Your task to perform on an android device: View the shopping cart on target. Add "duracell triple a" to the cart on target, then select checkout. Image 0: 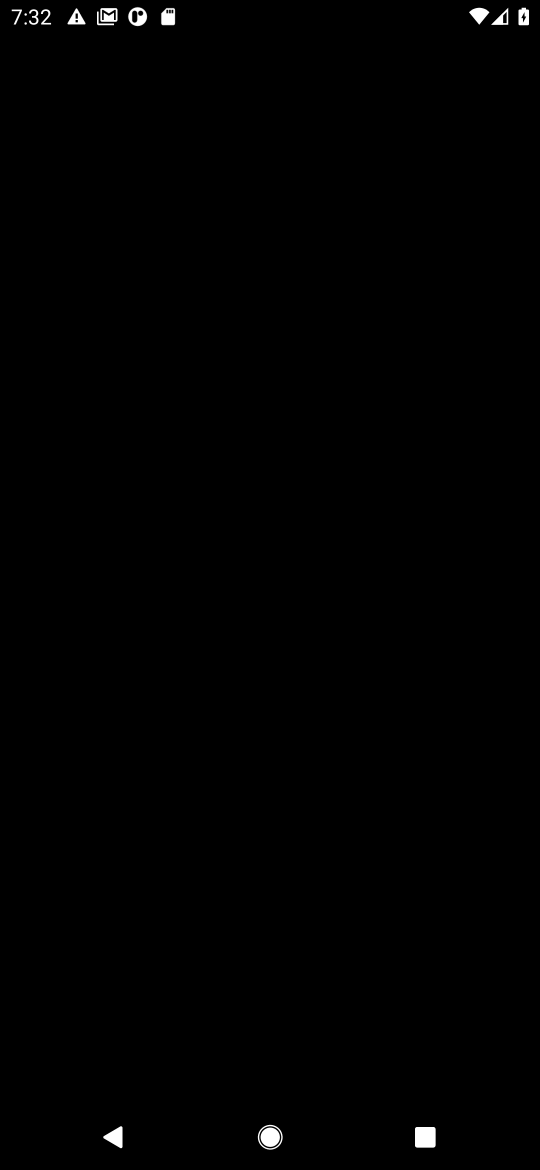
Step 0: press home button
Your task to perform on an android device: View the shopping cart on target. Add "duracell triple a" to the cart on target, then select checkout. Image 1: 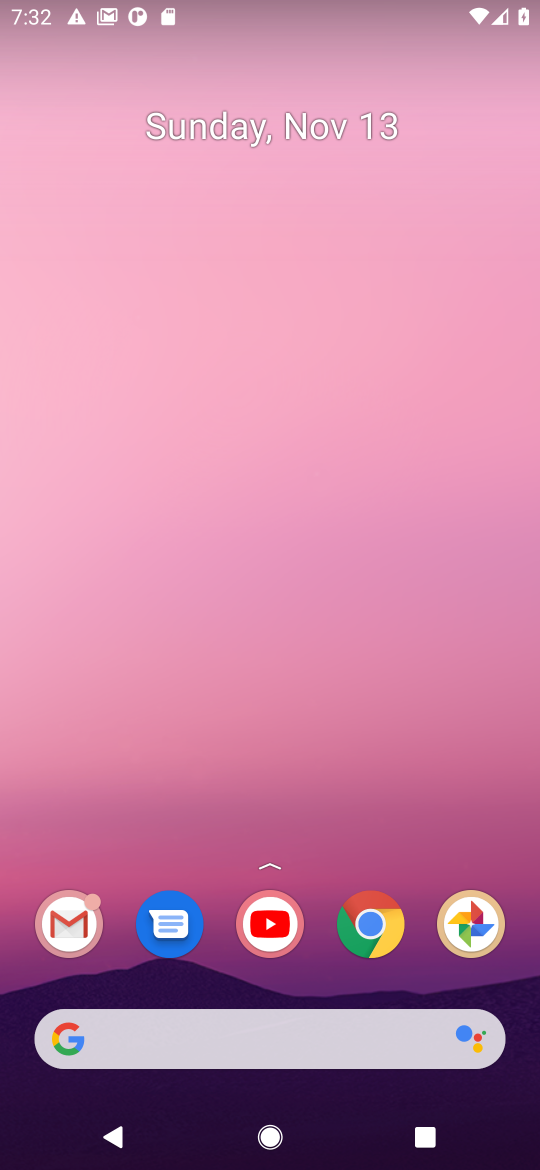
Step 1: click (384, 927)
Your task to perform on an android device: View the shopping cart on target. Add "duracell triple a" to the cart on target, then select checkout. Image 2: 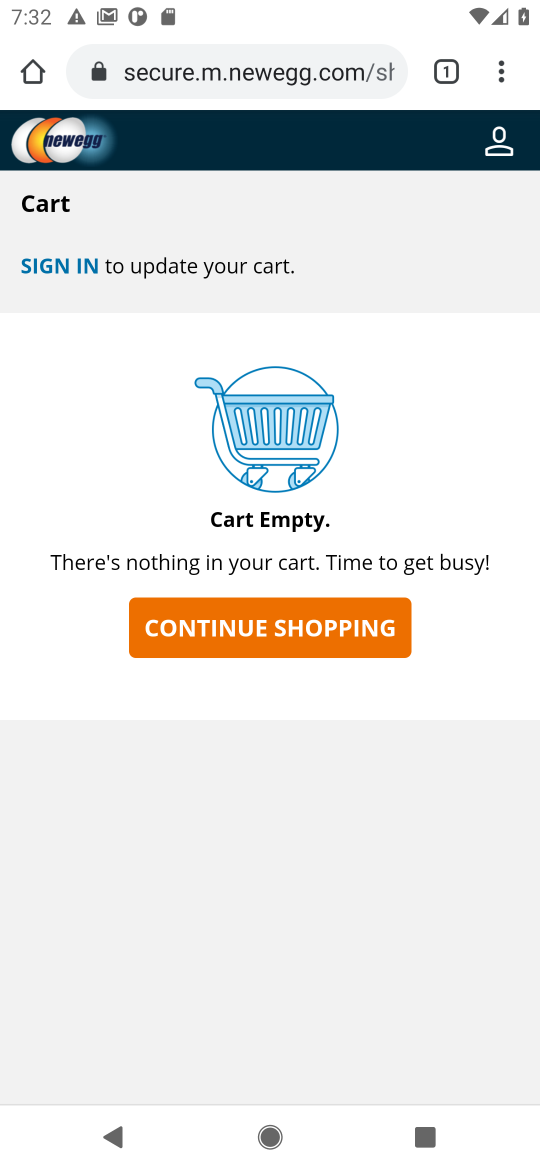
Step 2: click (224, 67)
Your task to perform on an android device: View the shopping cart on target. Add "duracell triple a" to the cart on target, then select checkout. Image 3: 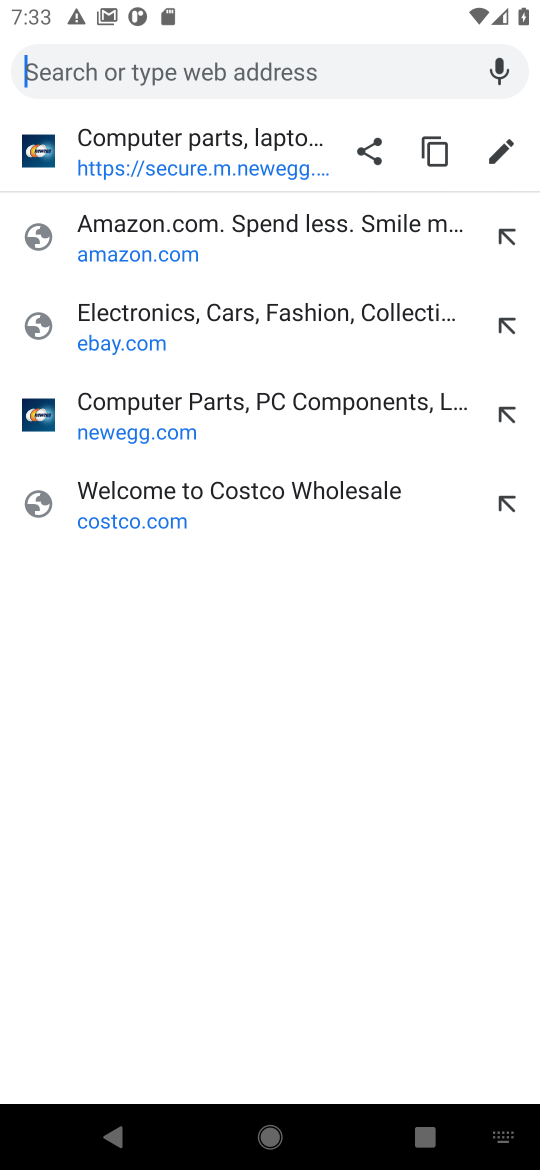
Step 3: type "target.com"
Your task to perform on an android device: View the shopping cart on target. Add "duracell triple a" to the cart on target, then select checkout. Image 4: 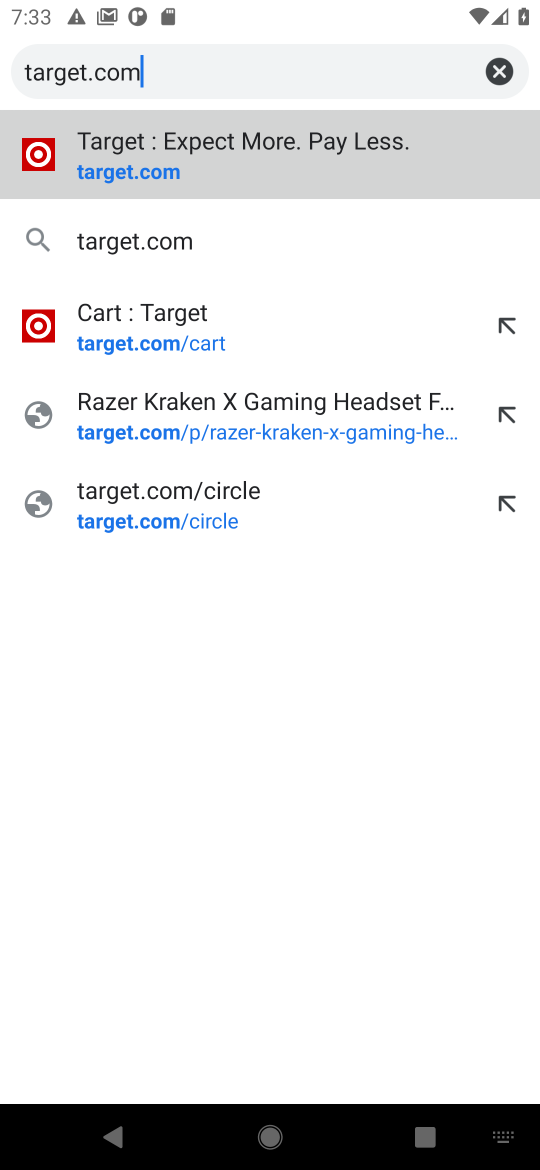
Step 4: click (105, 173)
Your task to perform on an android device: View the shopping cart on target. Add "duracell triple a" to the cart on target, then select checkout. Image 5: 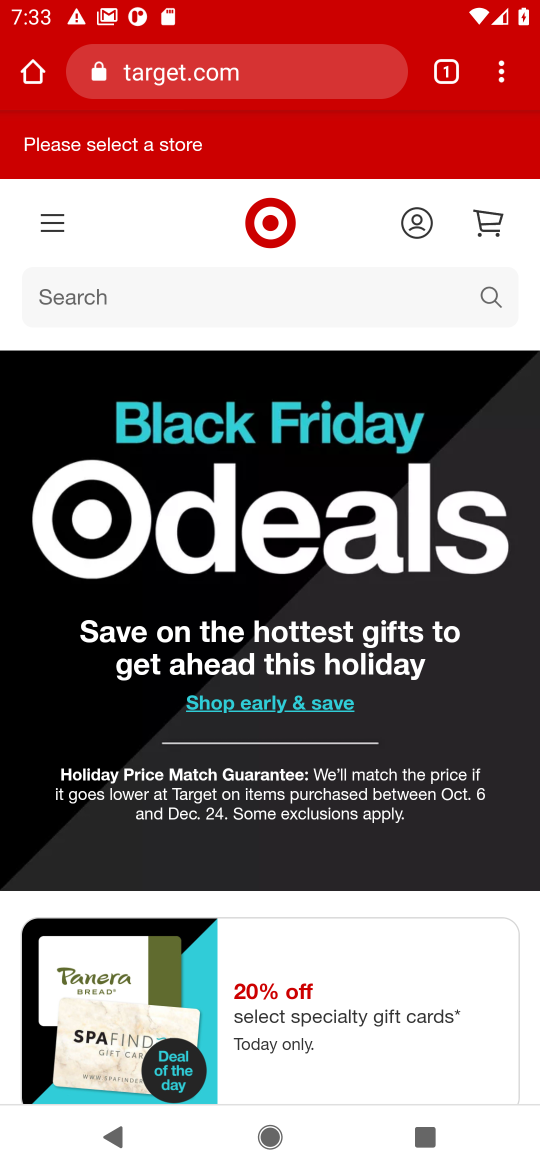
Step 5: click (495, 229)
Your task to perform on an android device: View the shopping cart on target. Add "duracell triple a" to the cart on target, then select checkout. Image 6: 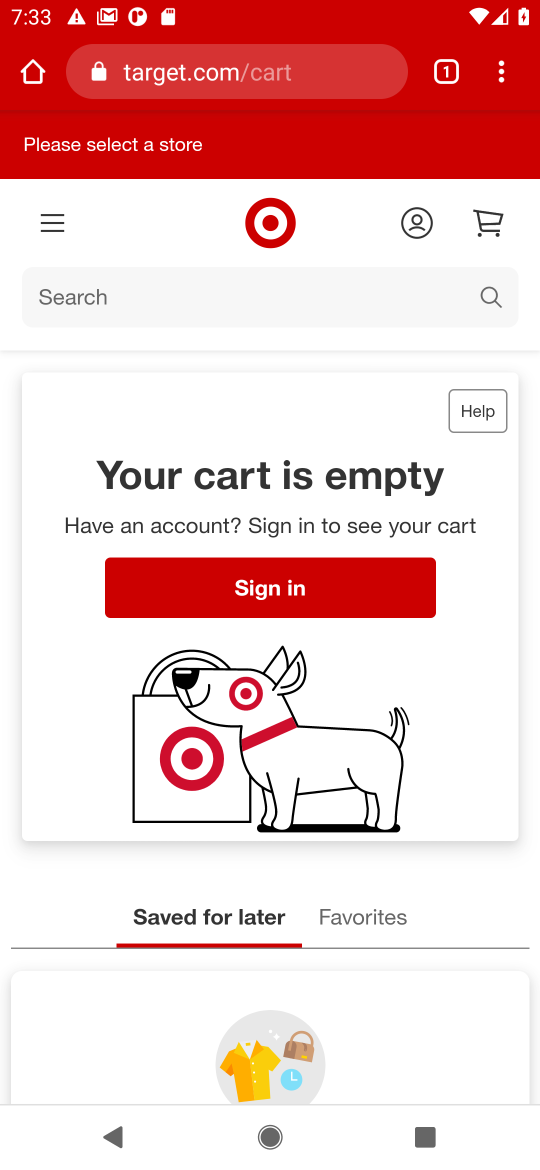
Step 6: click (493, 294)
Your task to perform on an android device: View the shopping cart on target. Add "duracell triple a" to the cart on target, then select checkout. Image 7: 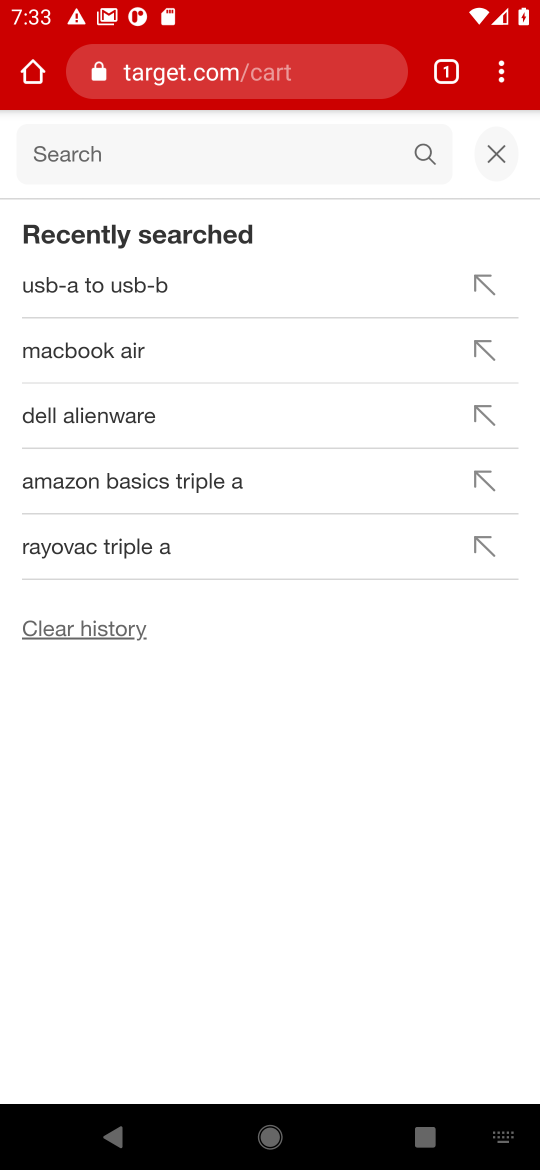
Step 7: type "duracell triple a"
Your task to perform on an android device: View the shopping cart on target. Add "duracell triple a" to the cart on target, then select checkout. Image 8: 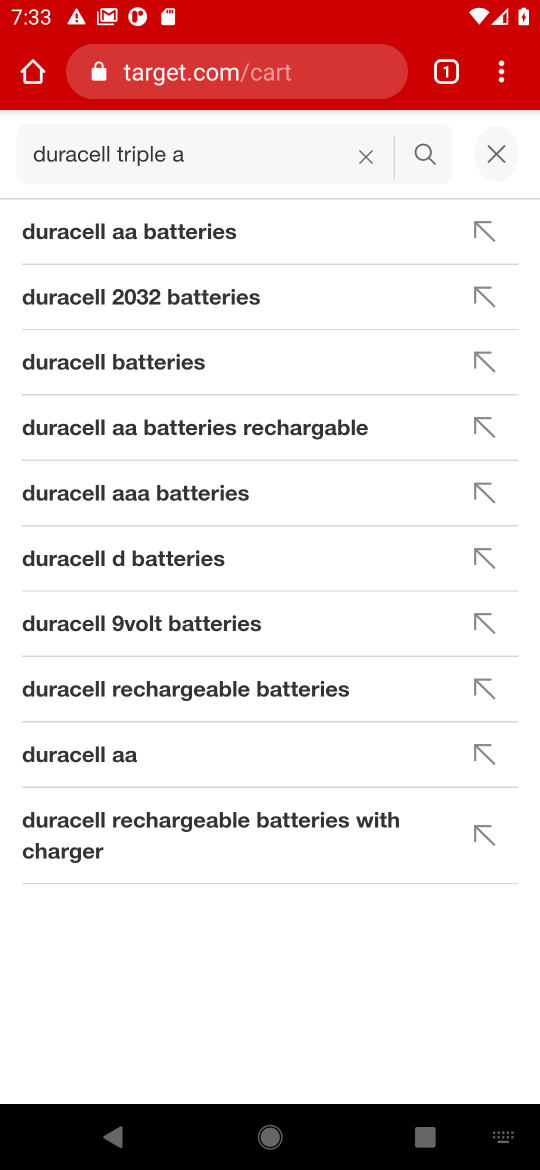
Step 8: click (434, 152)
Your task to perform on an android device: View the shopping cart on target. Add "duracell triple a" to the cart on target, then select checkout. Image 9: 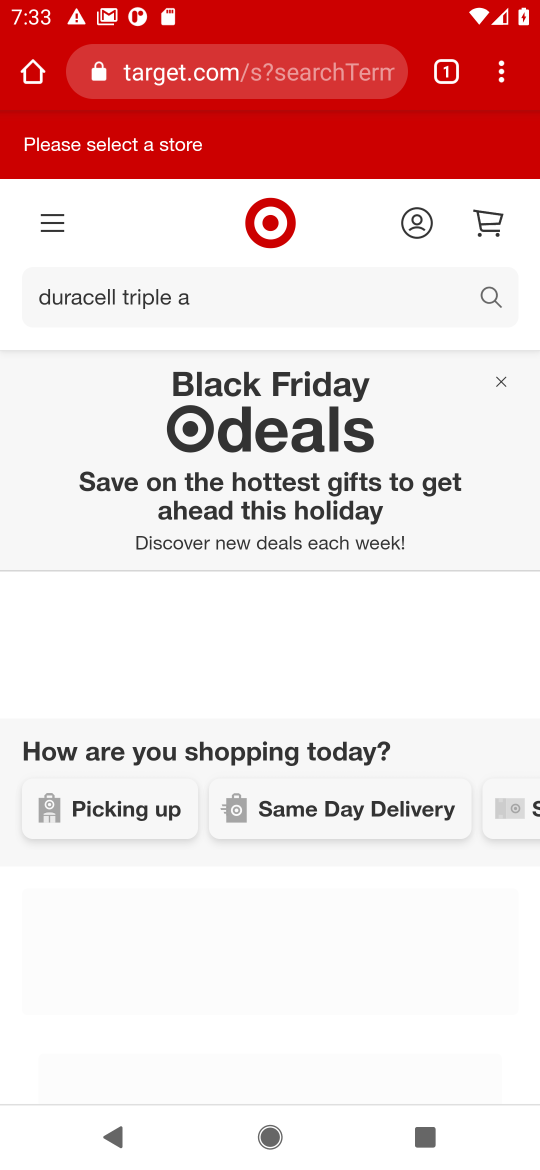
Step 9: drag from (285, 797) to (234, 328)
Your task to perform on an android device: View the shopping cart on target. Add "duracell triple a" to the cart on target, then select checkout. Image 10: 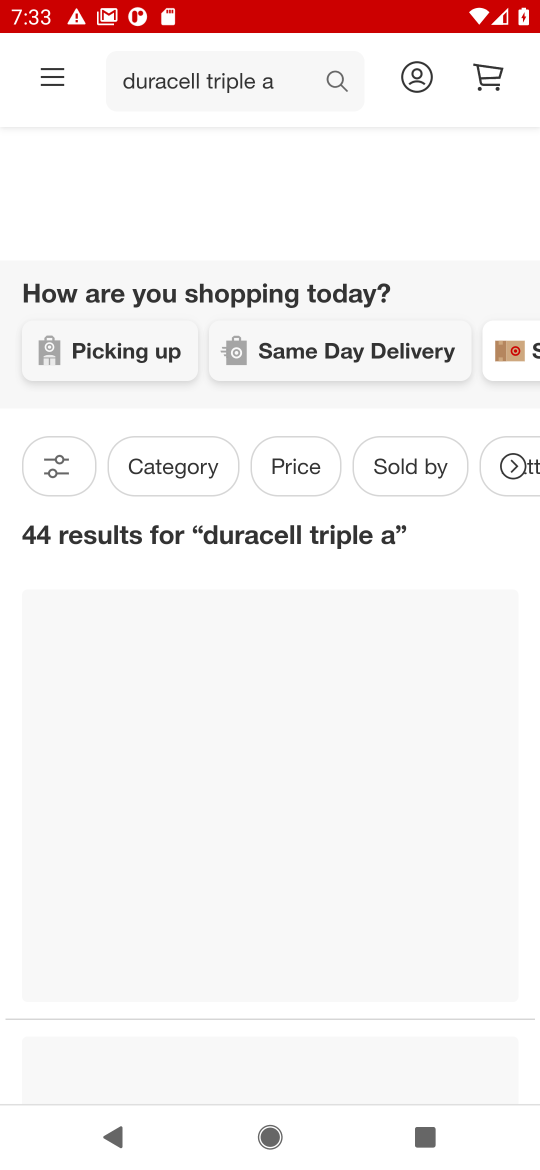
Step 10: drag from (195, 689) to (182, 295)
Your task to perform on an android device: View the shopping cart on target. Add "duracell triple a" to the cart on target, then select checkout. Image 11: 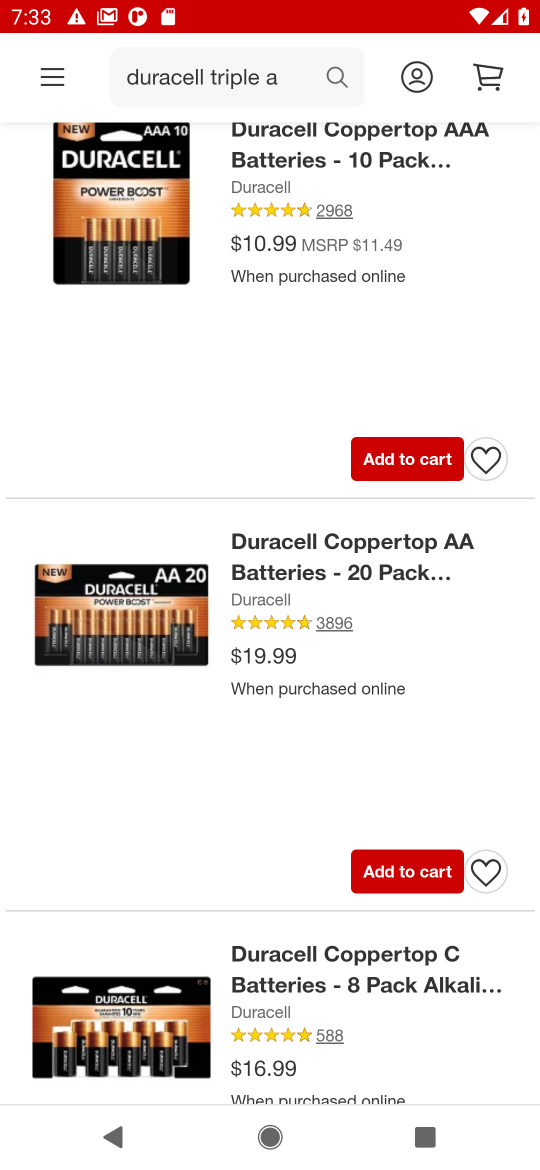
Step 11: drag from (180, 292) to (162, 482)
Your task to perform on an android device: View the shopping cart on target. Add "duracell triple a" to the cart on target, then select checkout. Image 12: 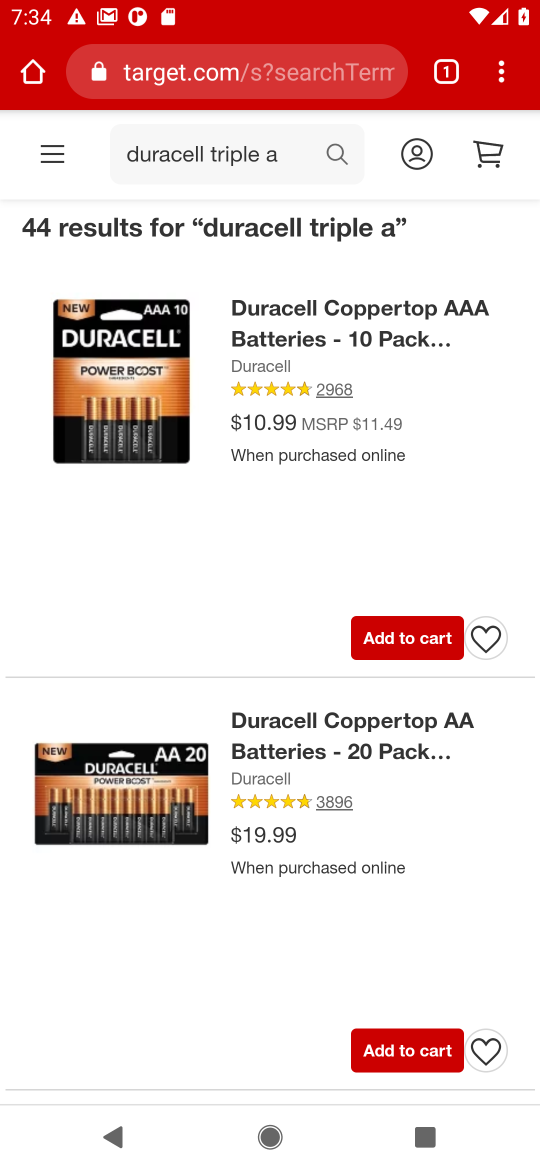
Step 12: click (393, 641)
Your task to perform on an android device: View the shopping cart on target. Add "duracell triple a" to the cart on target, then select checkout. Image 13: 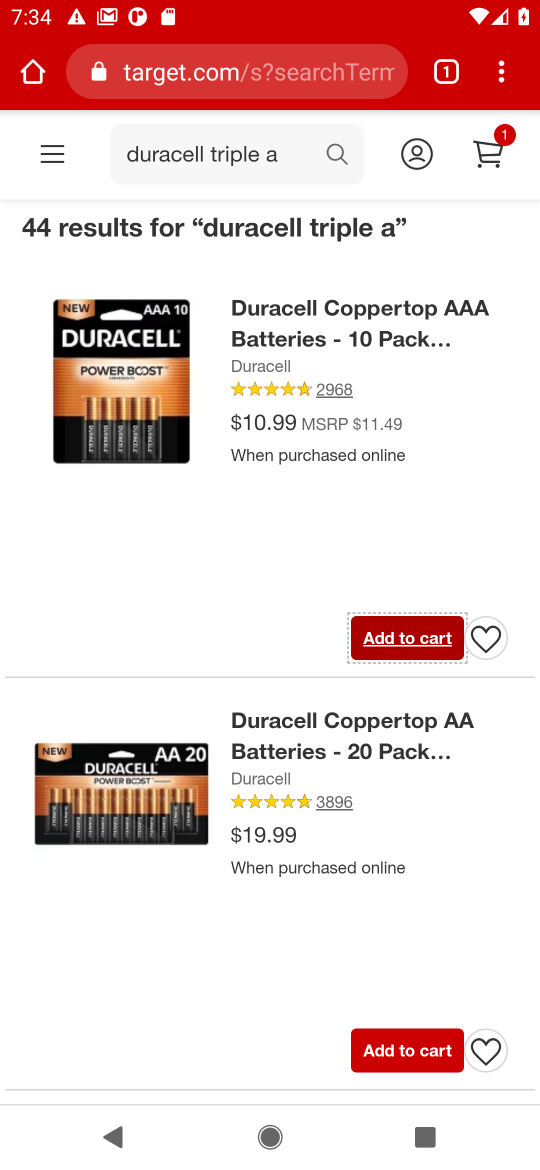
Step 13: click (403, 643)
Your task to perform on an android device: View the shopping cart on target. Add "duracell triple a" to the cart on target, then select checkout. Image 14: 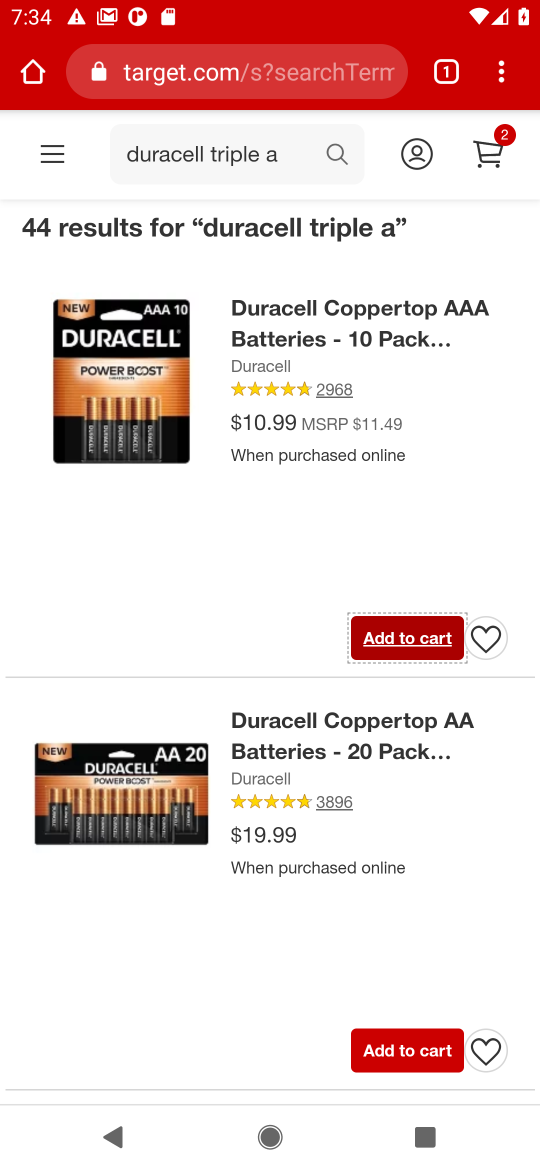
Step 14: click (485, 141)
Your task to perform on an android device: View the shopping cart on target. Add "duracell triple a" to the cart on target, then select checkout. Image 15: 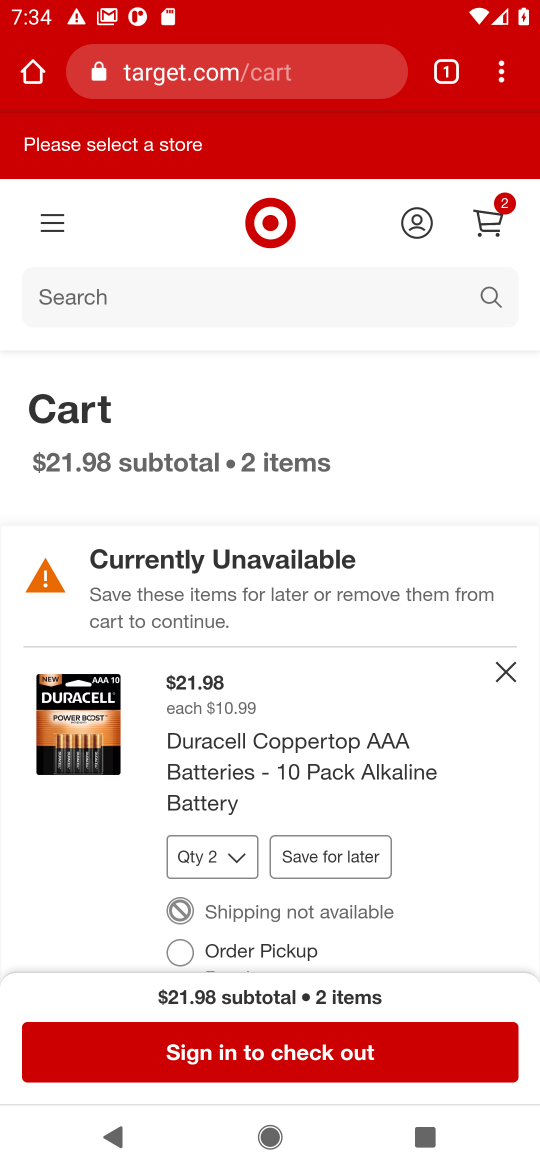
Step 15: click (250, 1062)
Your task to perform on an android device: View the shopping cart on target. Add "duracell triple a" to the cart on target, then select checkout. Image 16: 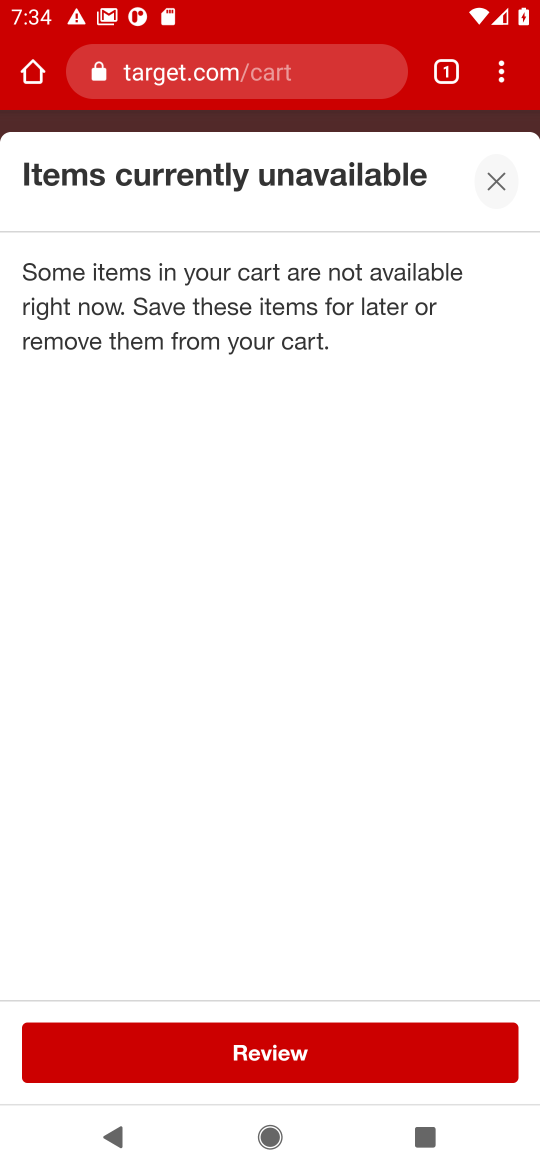
Step 16: task complete